Your task to perform on an android device: Open Google Image 0: 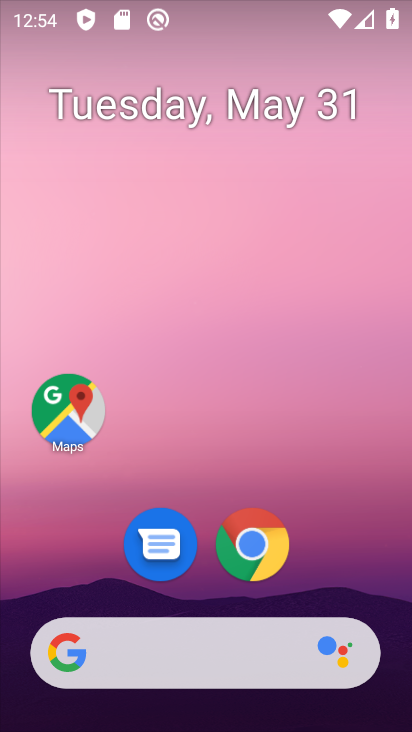
Step 0: drag from (315, 585) to (306, 5)
Your task to perform on an android device: Open Google Image 1: 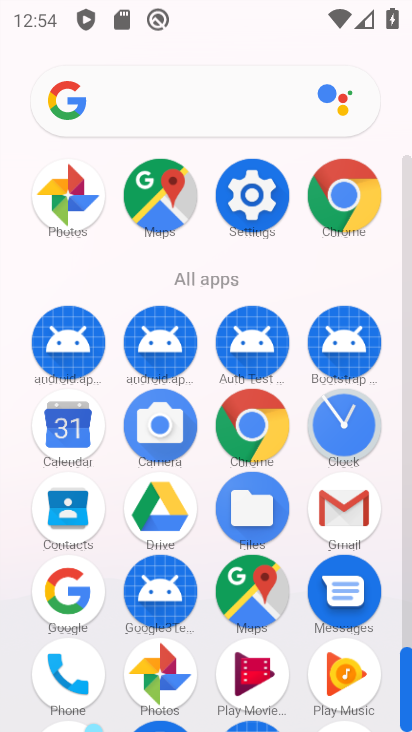
Step 1: click (58, 595)
Your task to perform on an android device: Open Google Image 2: 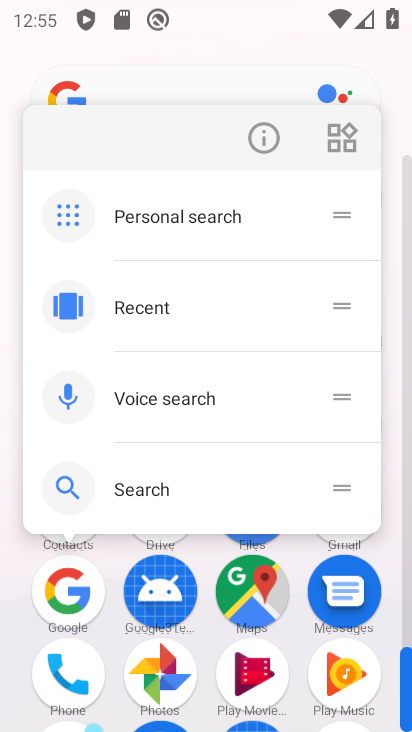
Step 2: click (59, 592)
Your task to perform on an android device: Open Google Image 3: 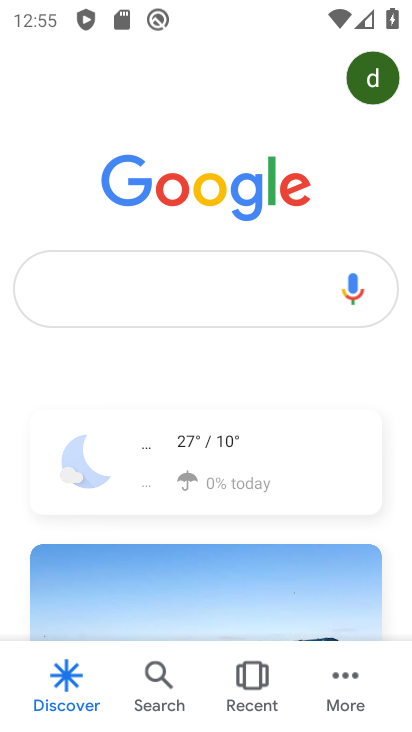
Step 3: task complete